Your task to perform on an android device: open the mobile data screen to see how much data has been used Image 0: 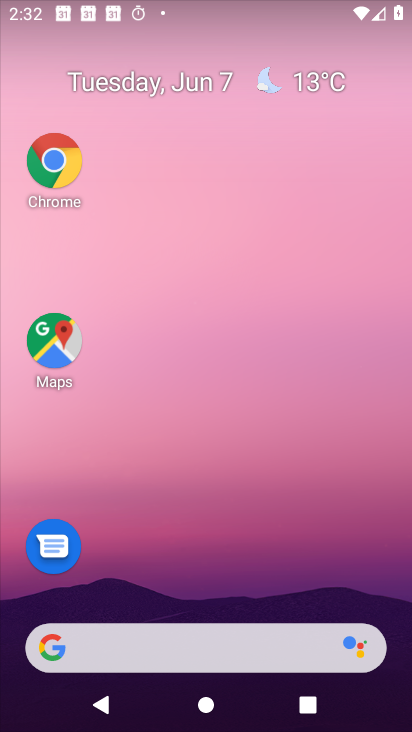
Step 0: click (285, 107)
Your task to perform on an android device: open the mobile data screen to see how much data has been used Image 1: 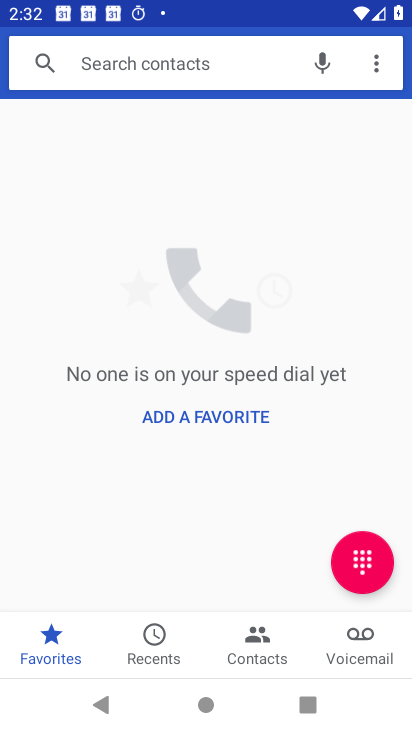
Step 1: drag from (181, 536) to (275, 48)
Your task to perform on an android device: open the mobile data screen to see how much data has been used Image 2: 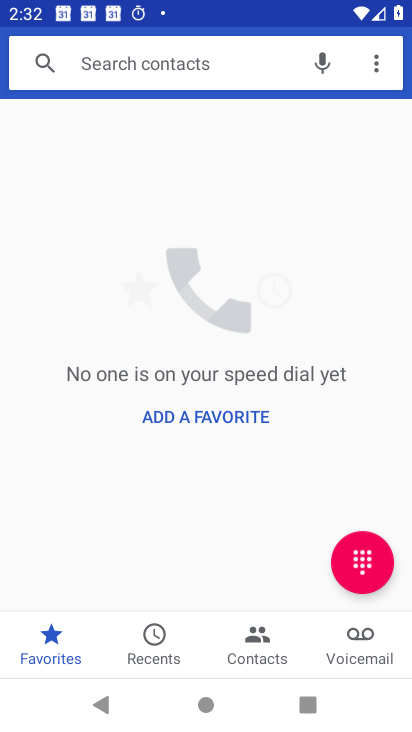
Step 2: press home button
Your task to perform on an android device: open the mobile data screen to see how much data has been used Image 3: 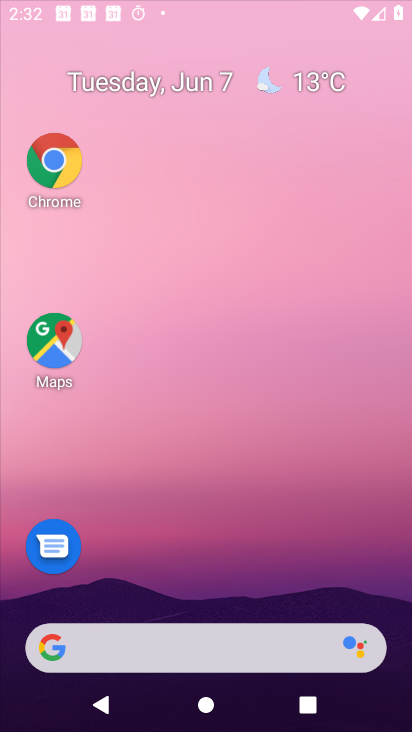
Step 3: drag from (198, 566) to (216, 159)
Your task to perform on an android device: open the mobile data screen to see how much data has been used Image 4: 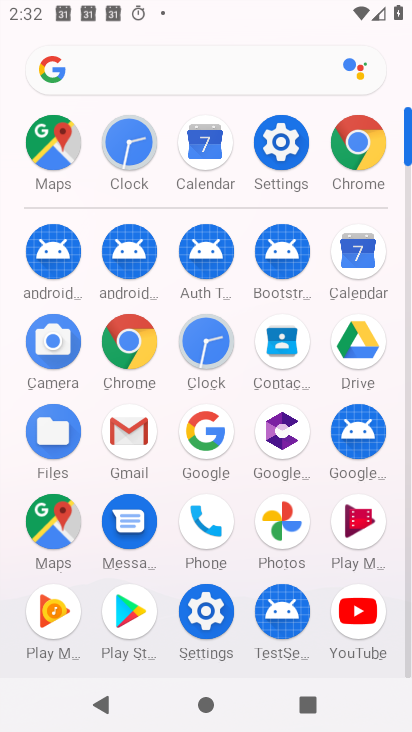
Step 4: click (285, 144)
Your task to perform on an android device: open the mobile data screen to see how much data has been used Image 5: 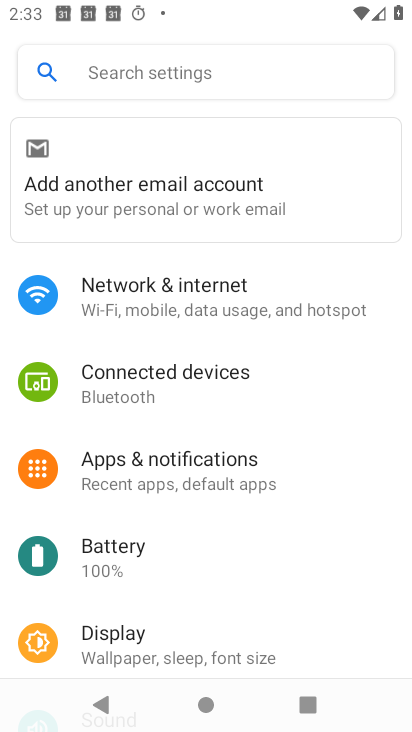
Step 5: click (213, 305)
Your task to perform on an android device: open the mobile data screen to see how much data has been used Image 6: 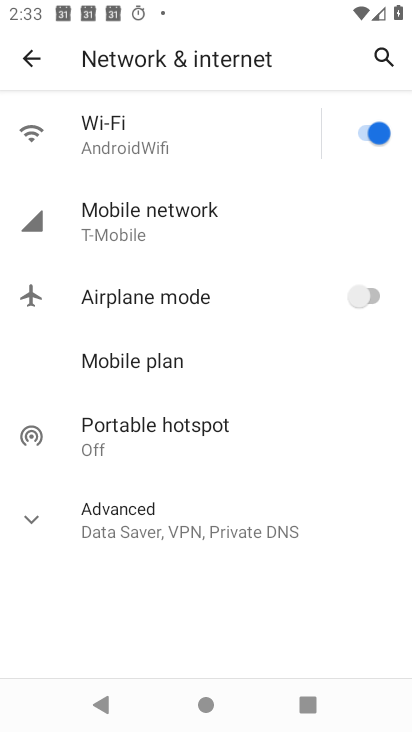
Step 6: click (260, 221)
Your task to perform on an android device: open the mobile data screen to see how much data has been used Image 7: 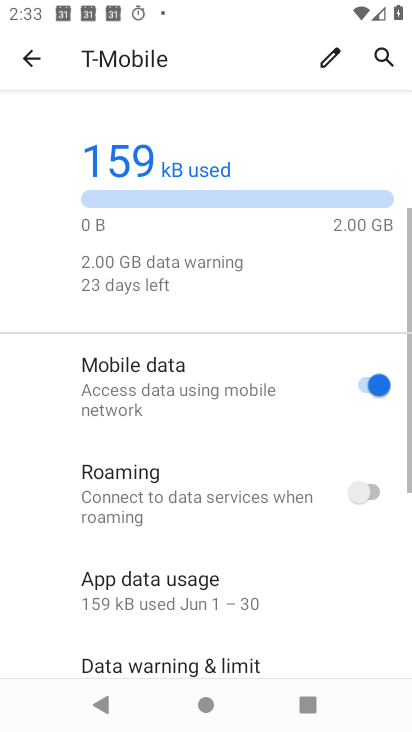
Step 7: task complete